Your task to perform on an android device: open app "Venmo" (install if not already installed) Image 0: 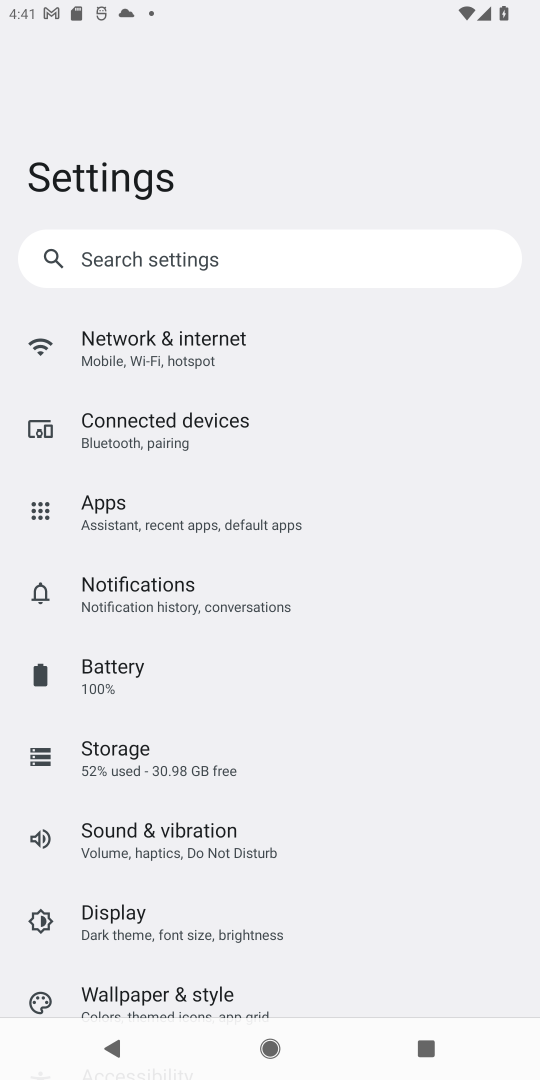
Step 0: press home button
Your task to perform on an android device: open app "Venmo" (install if not already installed) Image 1: 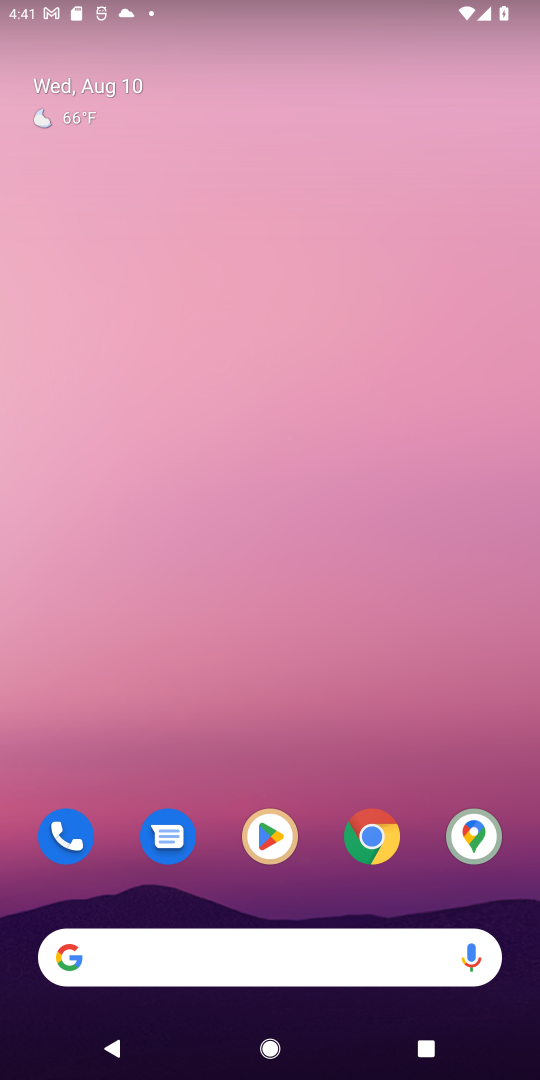
Step 1: drag from (249, 881) to (332, 282)
Your task to perform on an android device: open app "Venmo" (install if not already installed) Image 2: 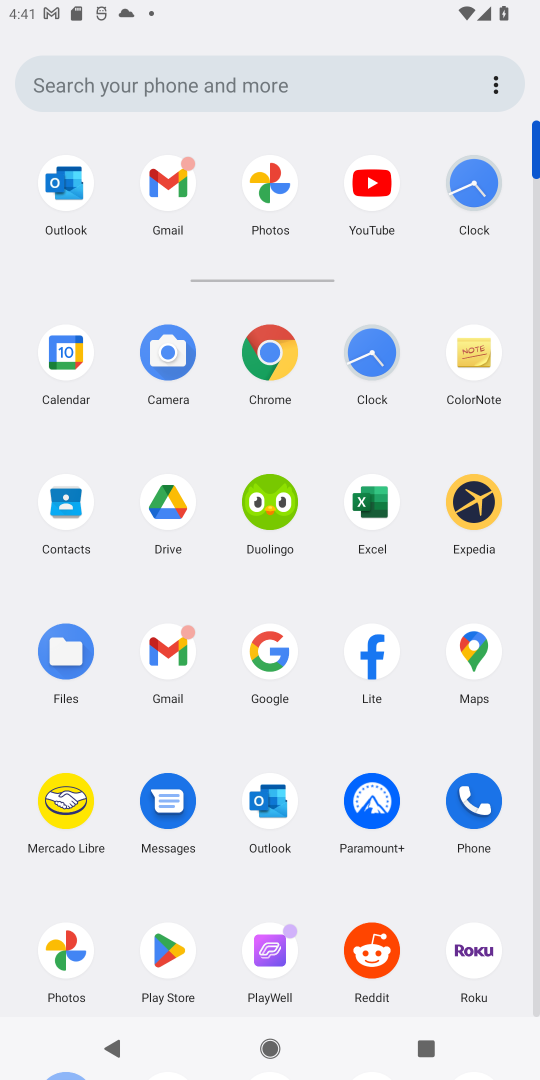
Step 2: click (173, 935)
Your task to perform on an android device: open app "Venmo" (install if not already installed) Image 3: 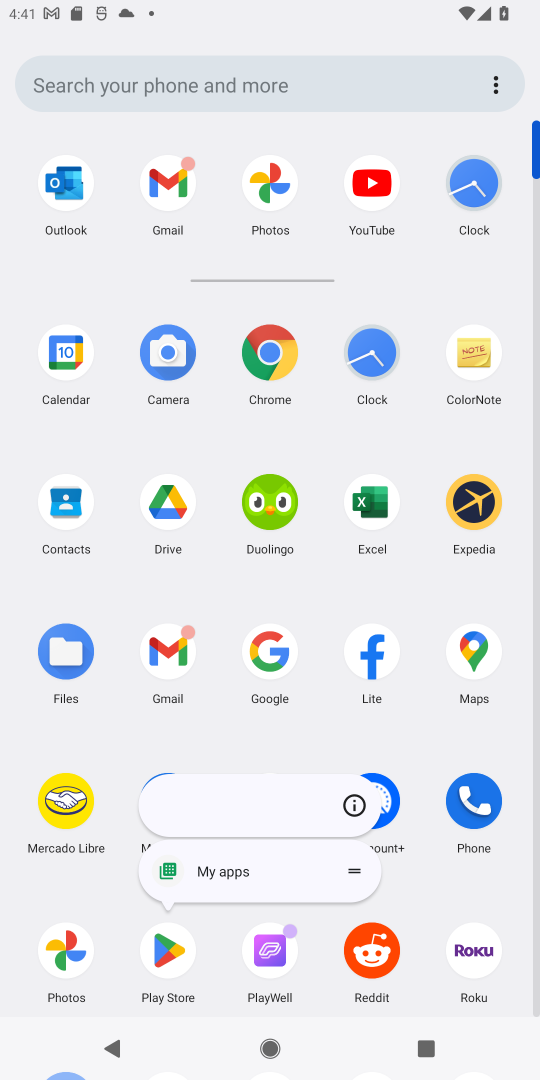
Step 3: click (173, 935)
Your task to perform on an android device: open app "Venmo" (install if not already installed) Image 4: 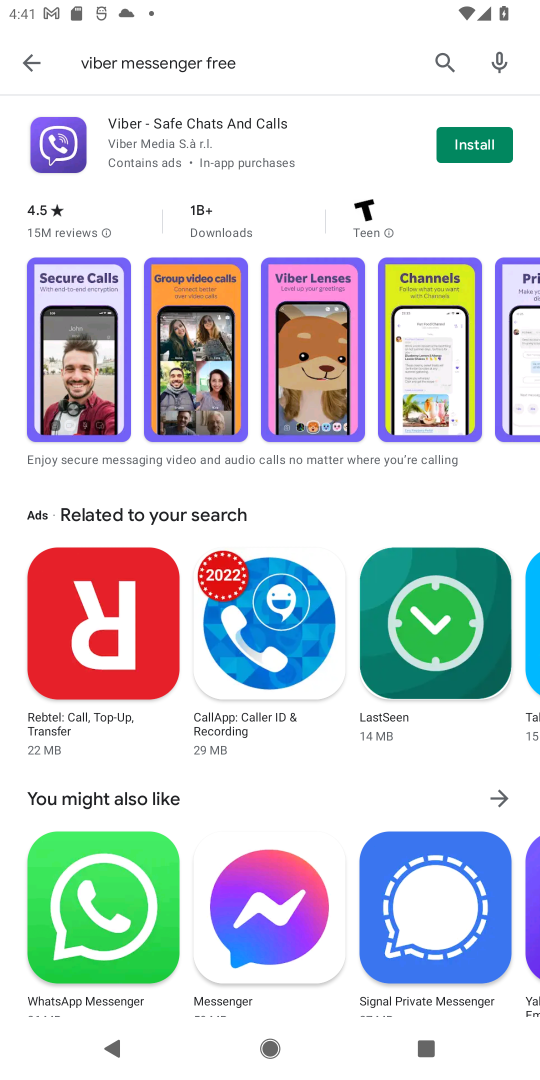
Step 4: click (39, 53)
Your task to perform on an android device: open app "Venmo" (install if not already installed) Image 5: 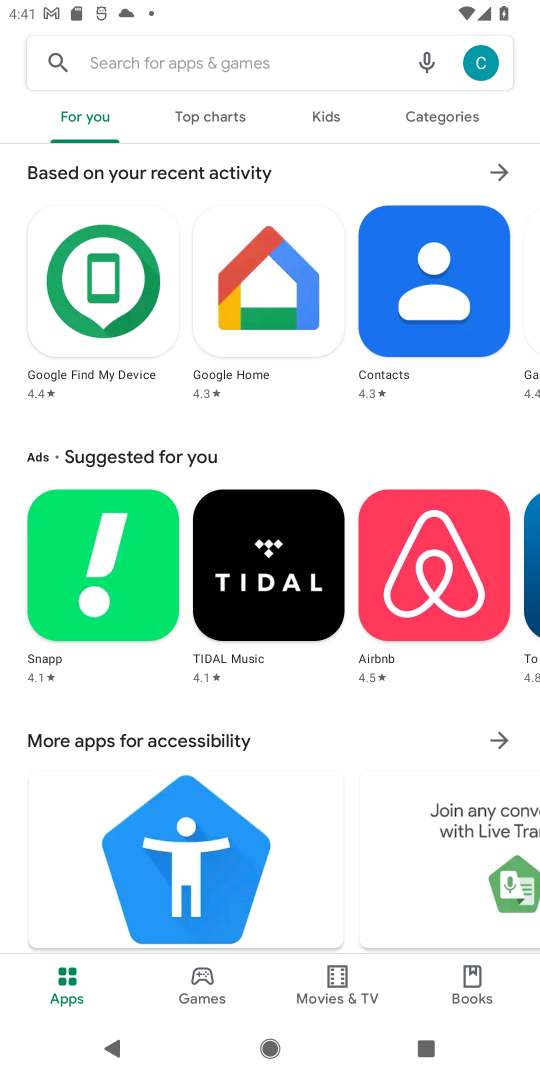
Step 5: click (186, 45)
Your task to perform on an android device: open app "Venmo" (install if not already installed) Image 6: 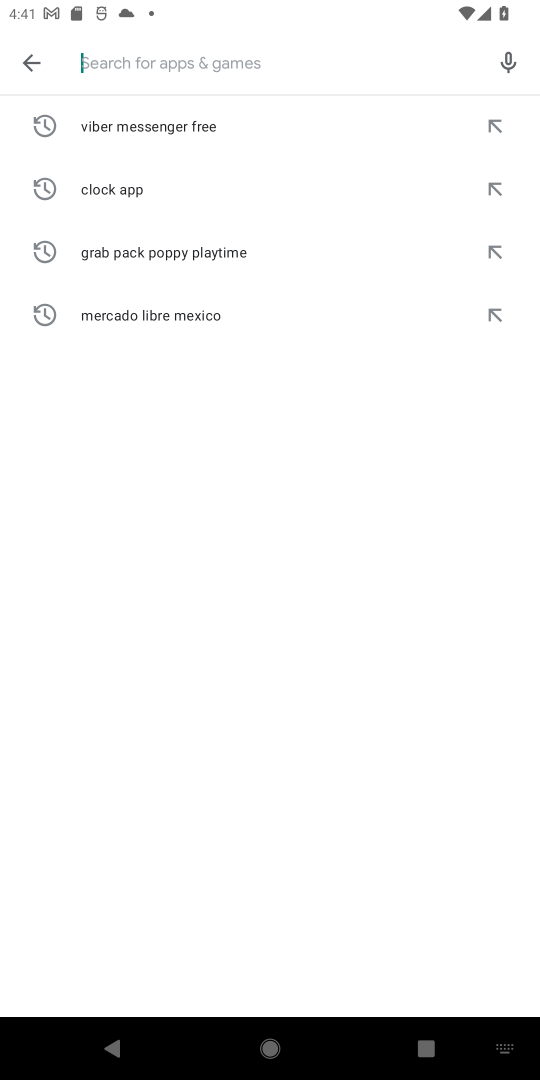
Step 6: type "venmo "
Your task to perform on an android device: open app "Venmo" (install if not already installed) Image 7: 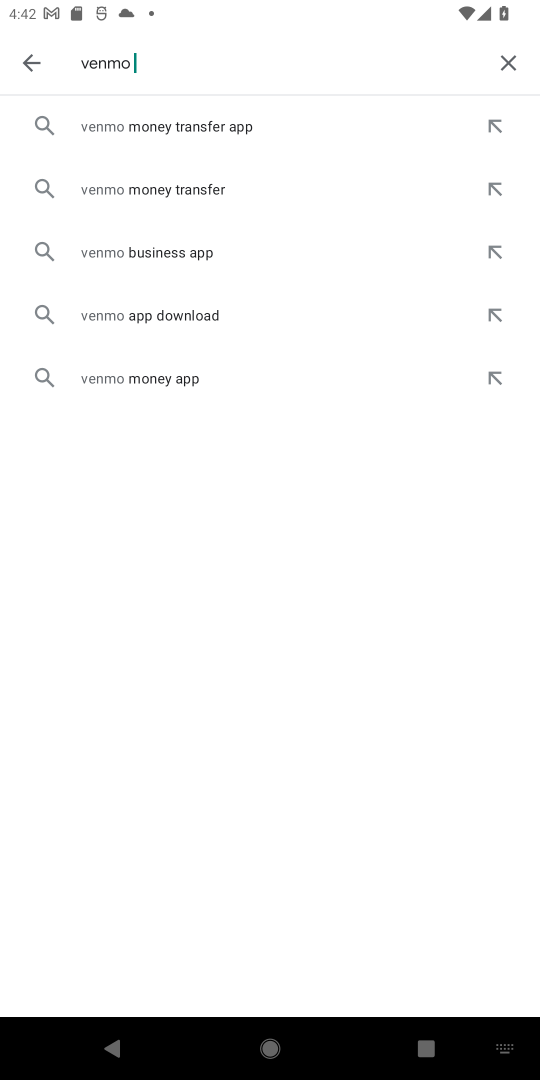
Step 7: click (168, 321)
Your task to perform on an android device: open app "Venmo" (install if not already installed) Image 8: 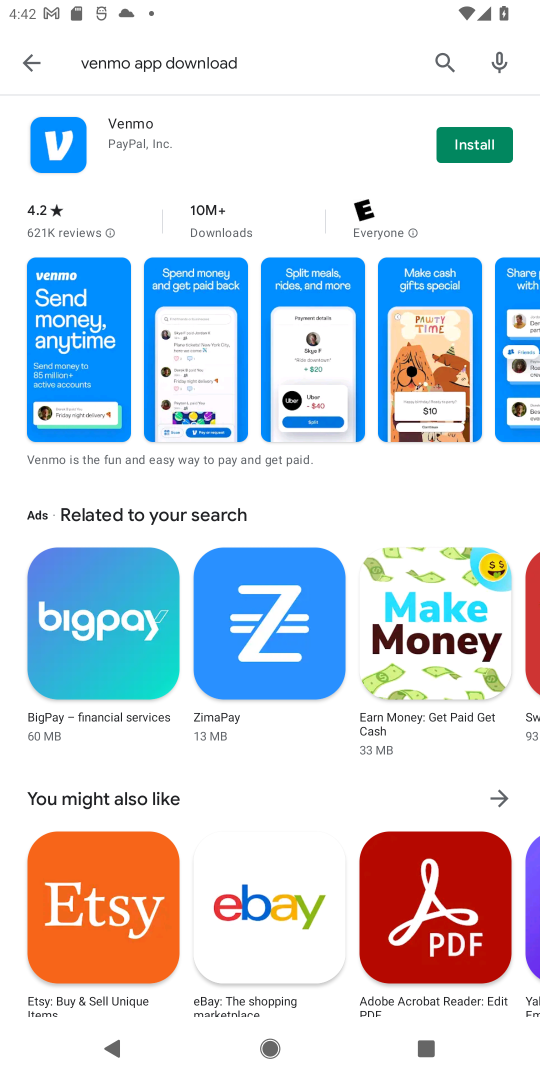
Step 8: click (469, 137)
Your task to perform on an android device: open app "Venmo" (install if not already installed) Image 9: 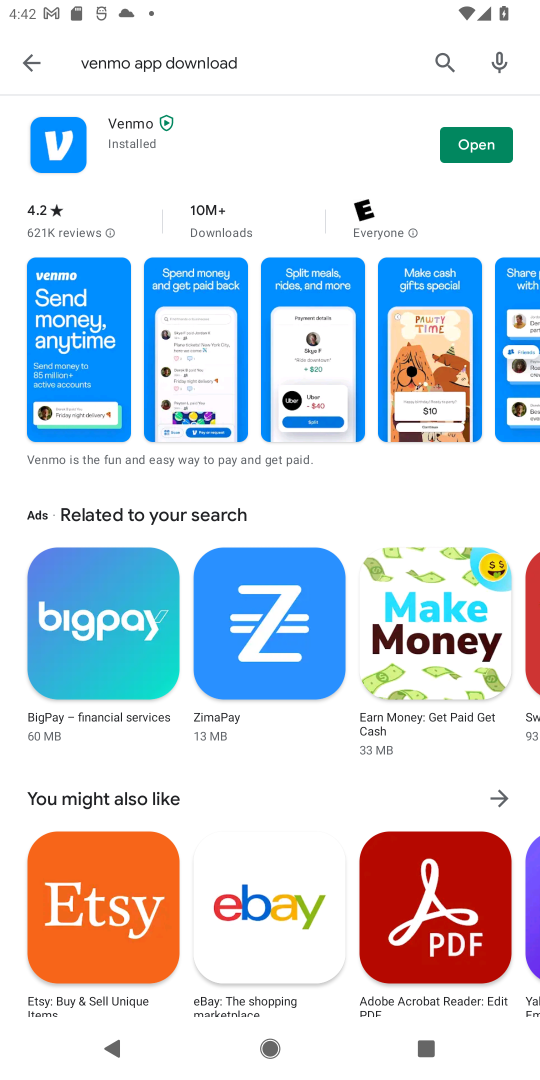
Step 9: task complete